Your task to perform on an android device: toggle translation in the chrome app Image 0: 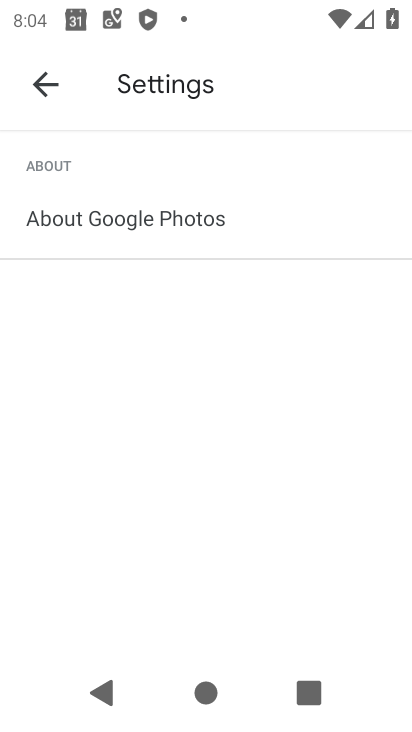
Step 0: press home button
Your task to perform on an android device: toggle translation in the chrome app Image 1: 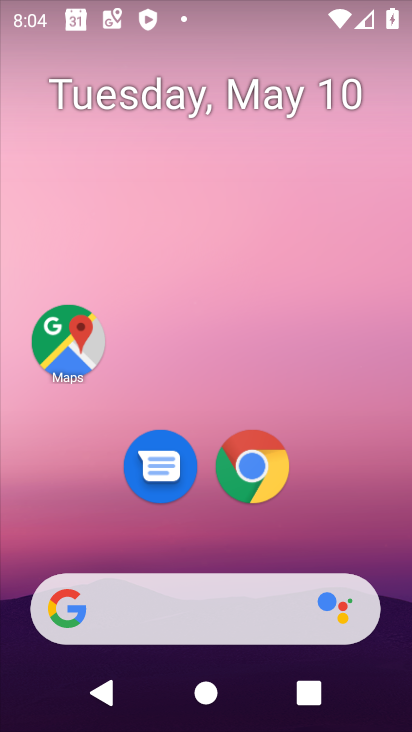
Step 1: click (248, 456)
Your task to perform on an android device: toggle translation in the chrome app Image 2: 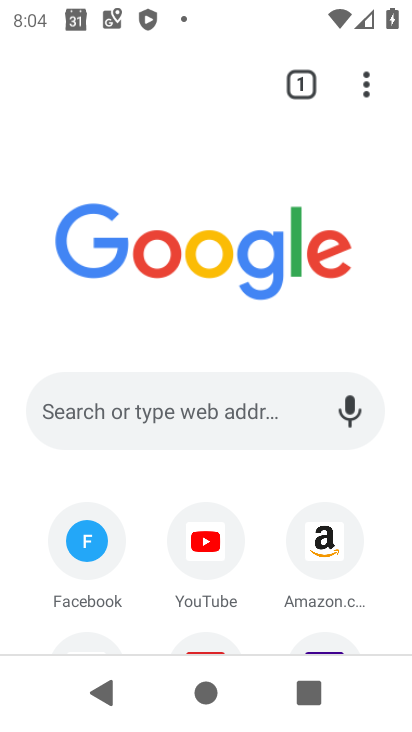
Step 2: click (367, 93)
Your task to perform on an android device: toggle translation in the chrome app Image 3: 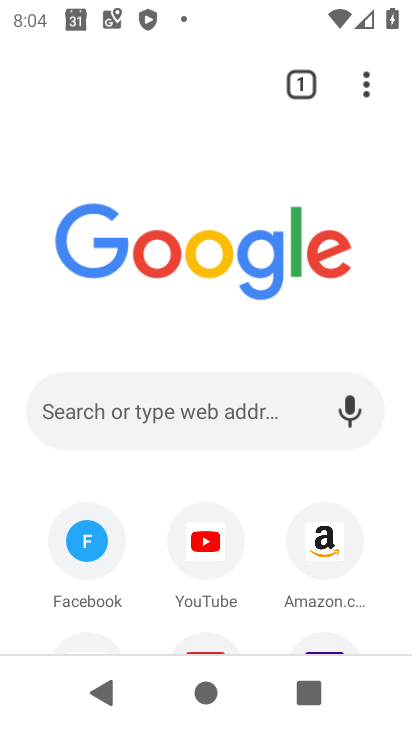
Step 3: click (354, 106)
Your task to perform on an android device: toggle translation in the chrome app Image 4: 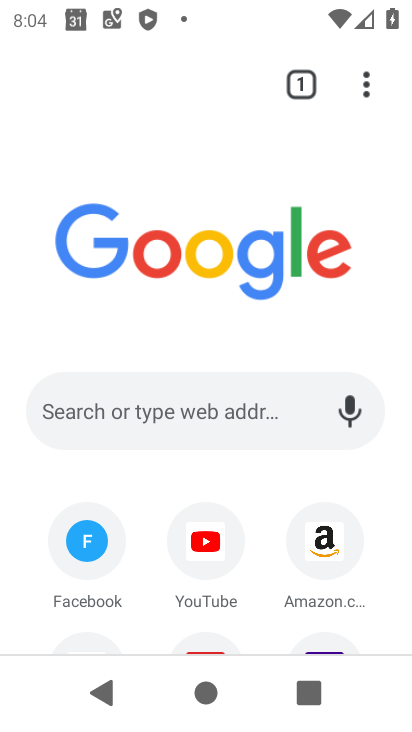
Step 4: click (379, 110)
Your task to perform on an android device: toggle translation in the chrome app Image 5: 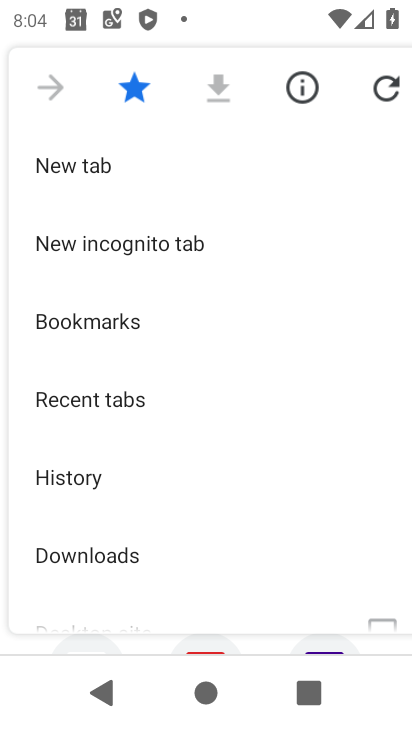
Step 5: drag from (147, 543) to (181, 443)
Your task to perform on an android device: toggle translation in the chrome app Image 6: 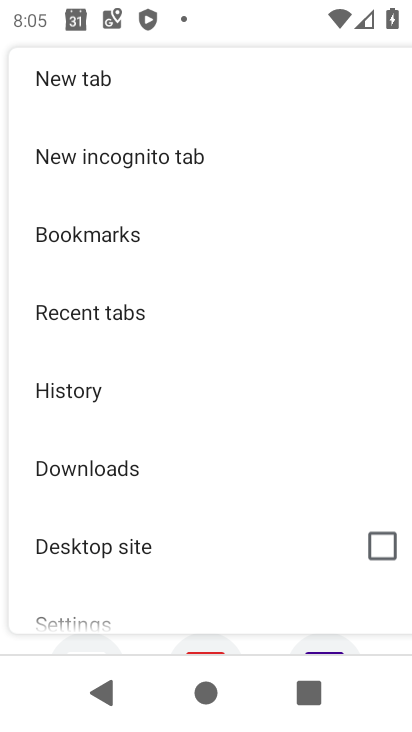
Step 6: drag from (156, 534) to (175, 450)
Your task to perform on an android device: toggle translation in the chrome app Image 7: 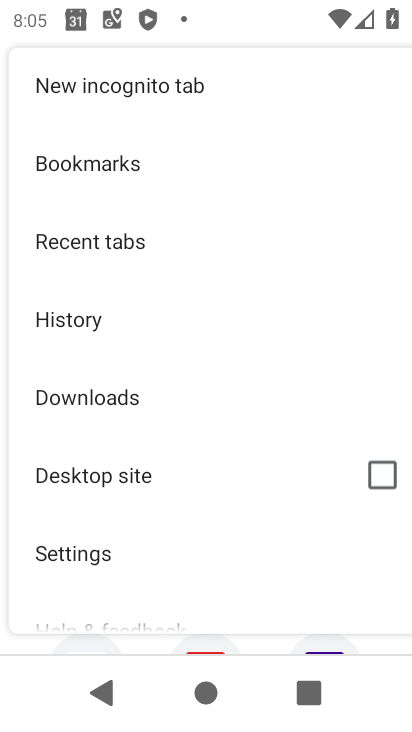
Step 7: click (116, 539)
Your task to perform on an android device: toggle translation in the chrome app Image 8: 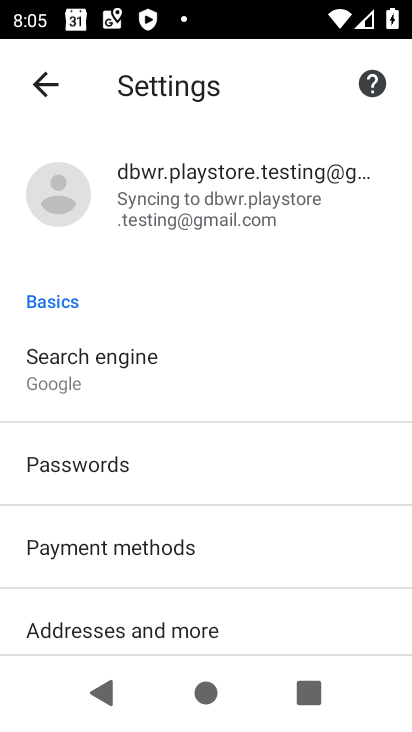
Step 8: drag from (123, 548) to (138, 447)
Your task to perform on an android device: toggle translation in the chrome app Image 9: 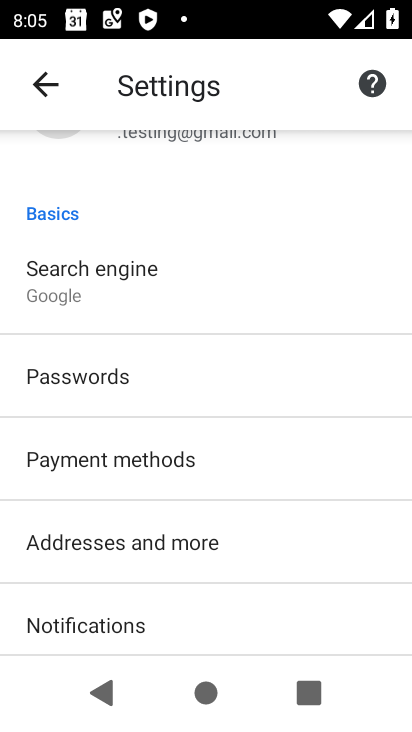
Step 9: drag from (123, 576) to (134, 460)
Your task to perform on an android device: toggle translation in the chrome app Image 10: 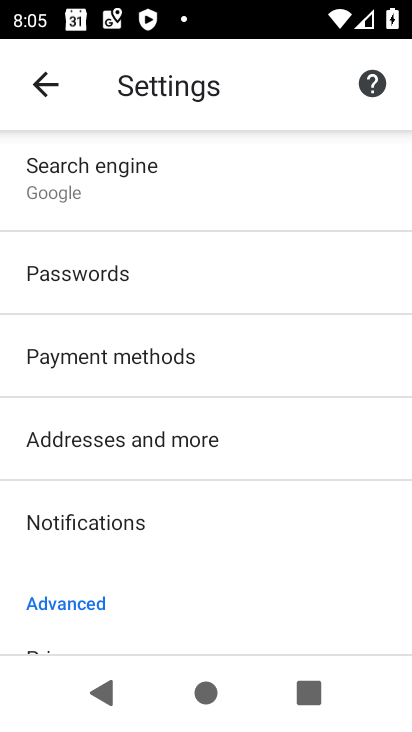
Step 10: drag from (135, 570) to (140, 474)
Your task to perform on an android device: toggle translation in the chrome app Image 11: 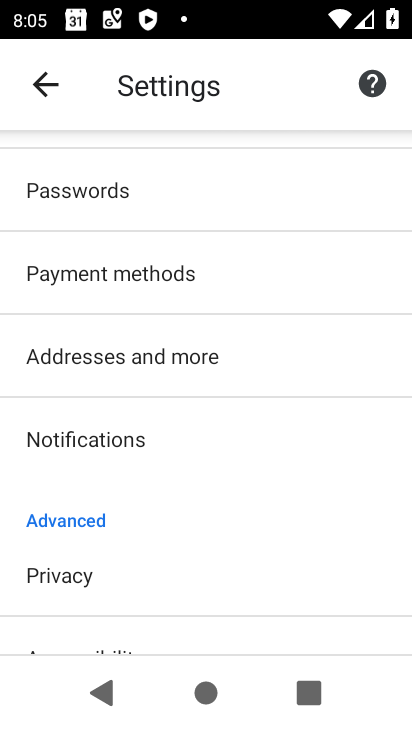
Step 11: drag from (134, 568) to (171, 410)
Your task to perform on an android device: toggle translation in the chrome app Image 12: 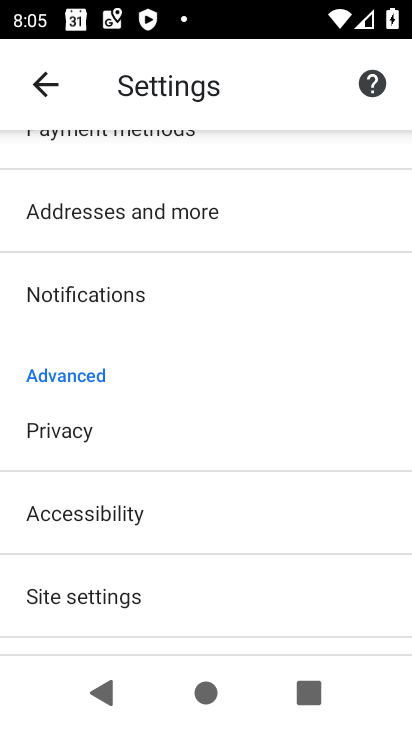
Step 12: drag from (109, 591) to (136, 455)
Your task to perform on an android device: toggle translation in the chrome app Image 13: 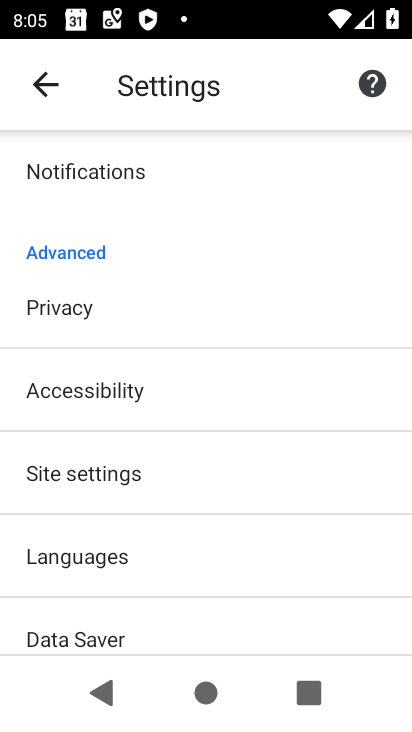
Step 13: click (130, 552)
Your task to perform on an android device: toggle translation in the chrome app Image 14: 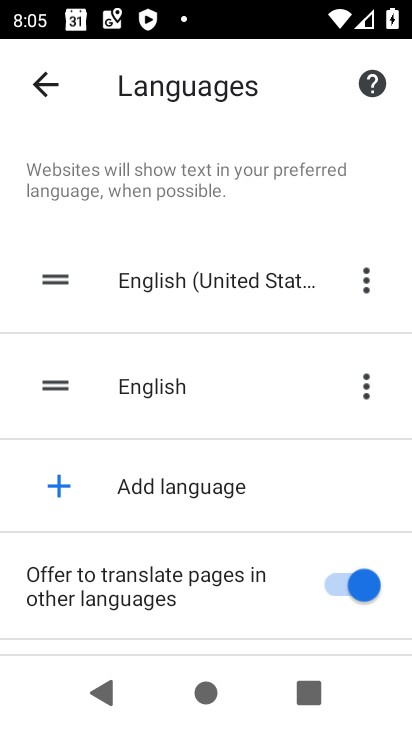
Step 14: click (319, 573)
Your task to perform on an android device: toggle translation in the chrome app Image 15: 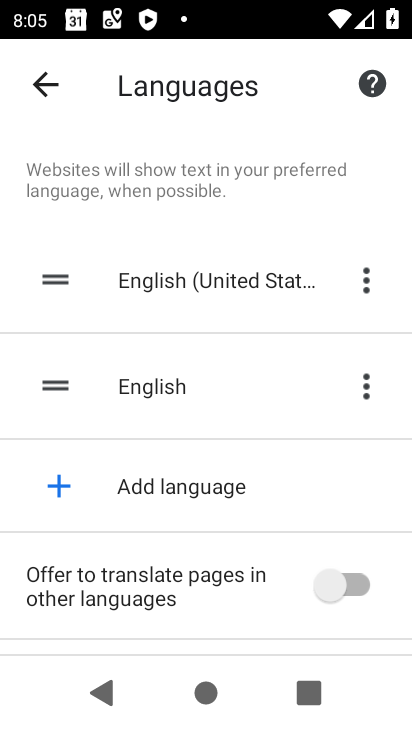
Step 15: task complete